Your task to perform on an android device: create a new album in the google photos Image 0: 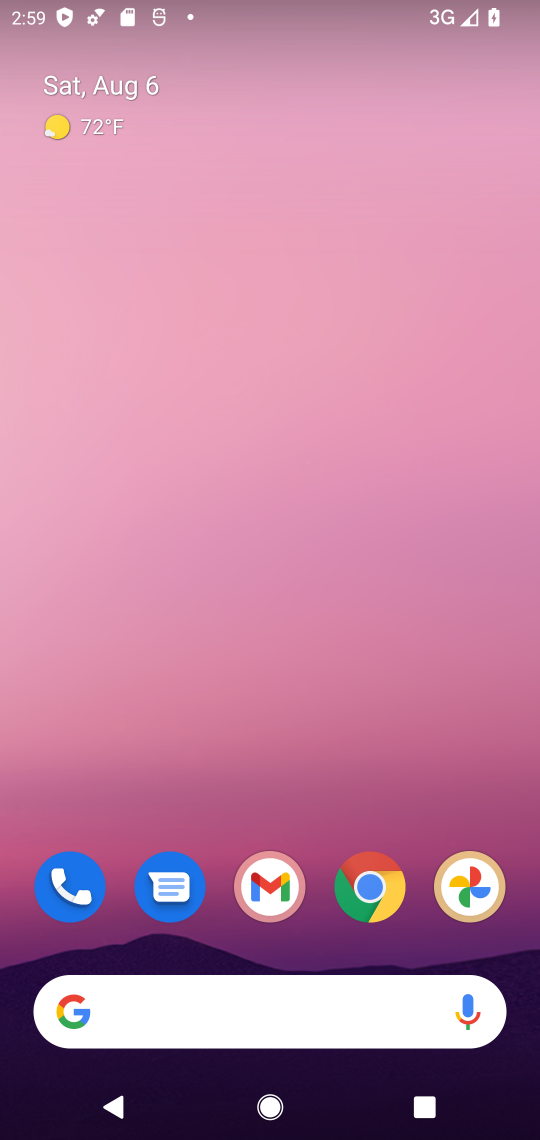
Step 0: drag from (412, 353) to (440, 183)
Your task to perform on an android device: create a new album in the google photos Image 1: 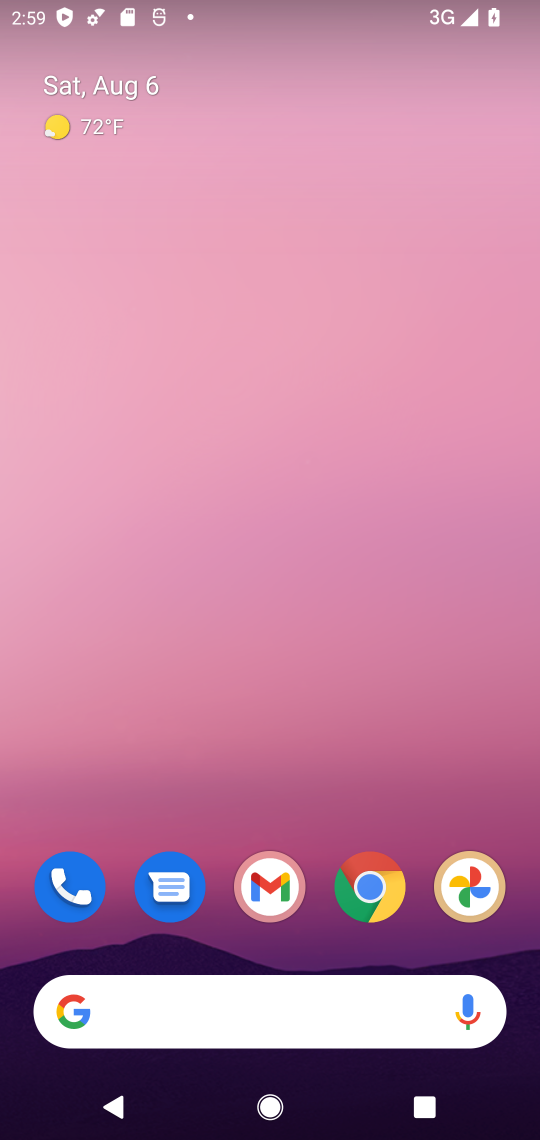
Step 1: drag from (411, 803) to (391, 78)
Your task to perform on an android device: create a new album in the google photos Image 2: 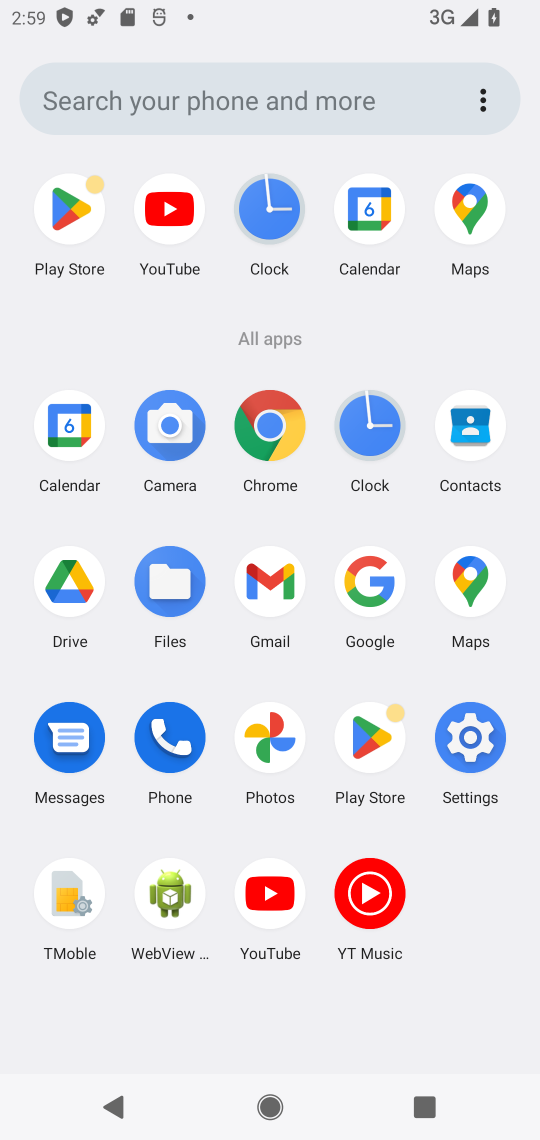
Step 2: click (269, 755)
Your task to perform on an android device: create a new album in the google photos Image 3: 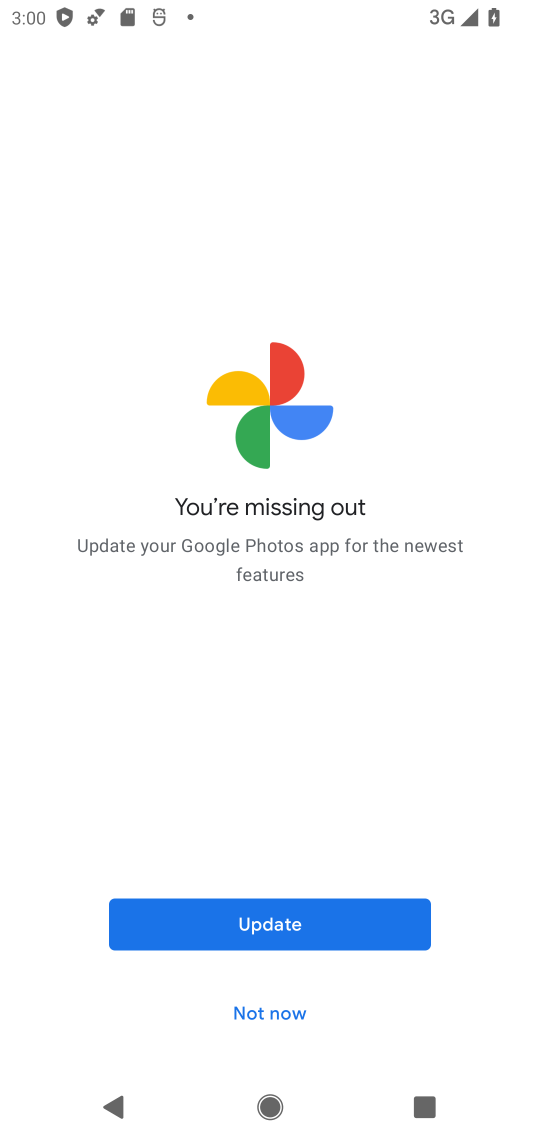
Step 3: click (278, 1015)
Your task to perform on an android device: create a new album in the google photos Image 4: 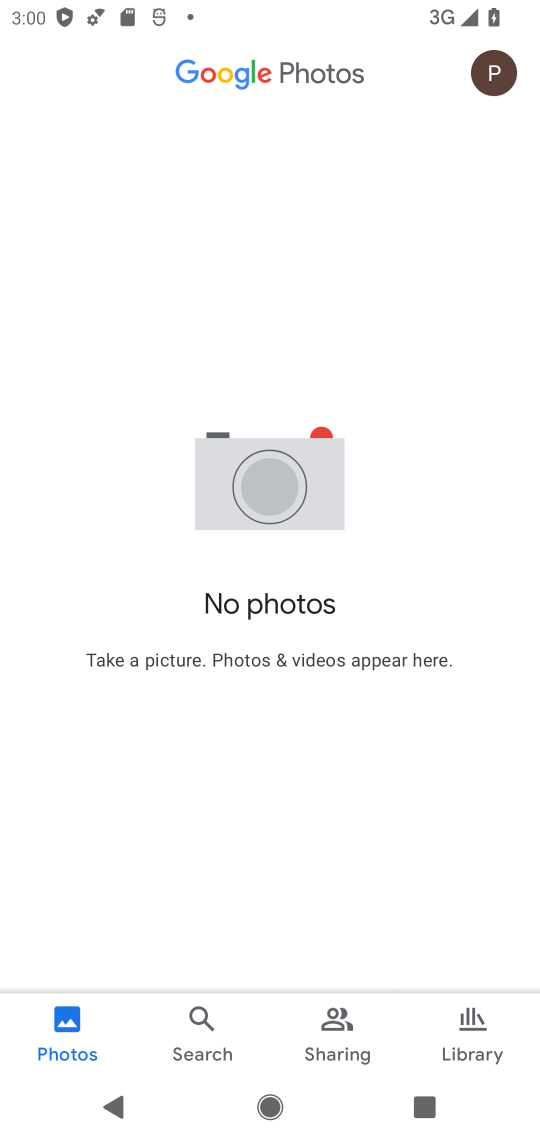
Step 4: click (470, 1030)
Your task to perform on an android device: create a new album in the google photos Image 5: 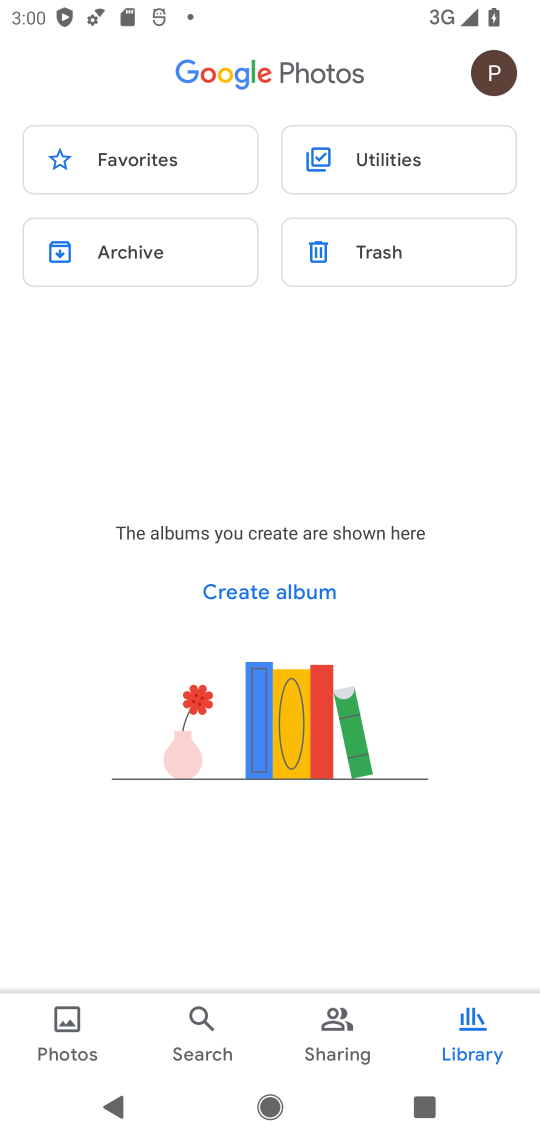
Step 5: click (306, 583)
Your task to perform on an android device: create a new album in the google photos Image 6: 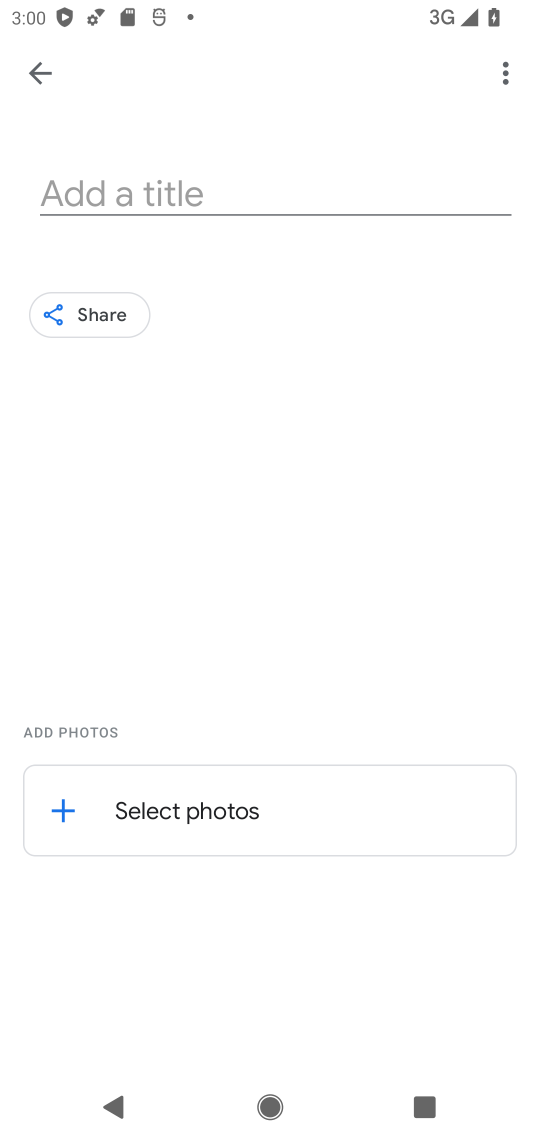
Step 6: click (224, 189)
Your task to perform on an android device: create a new album in the google photos Image 7: 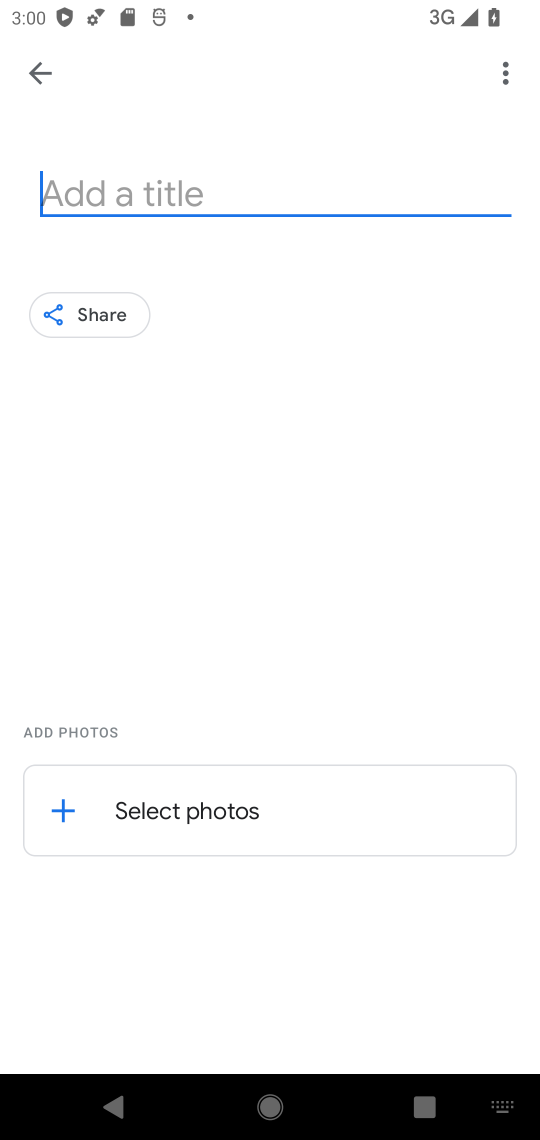
Step 7: type "lolol"
Your task to perform on an android device: create a new album in the google photos Image 8: 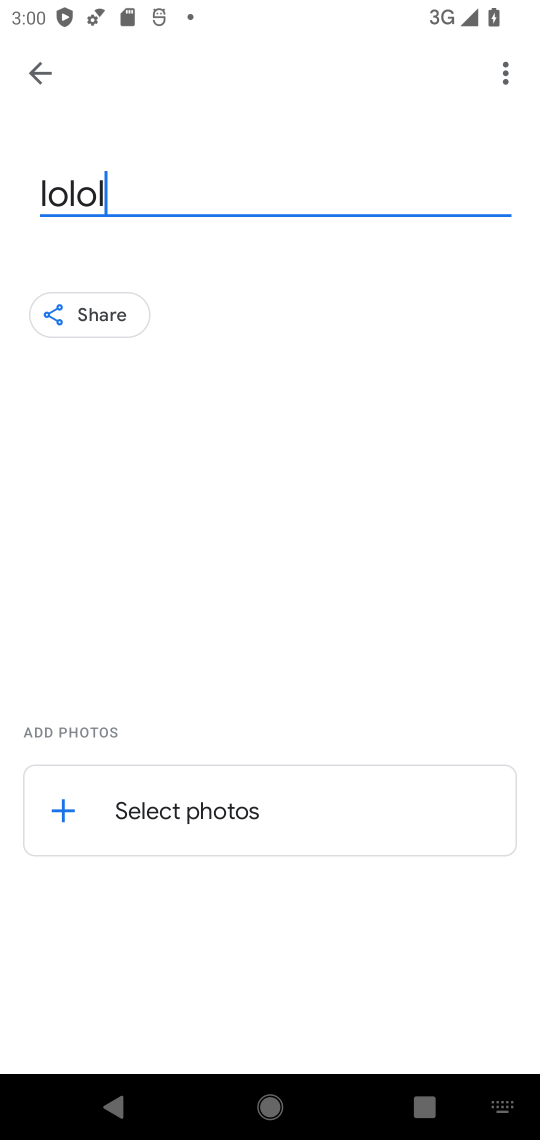
Step 8: click (315, 796)
Your task to perform on an android device: create a new album in the google photos Image 9: 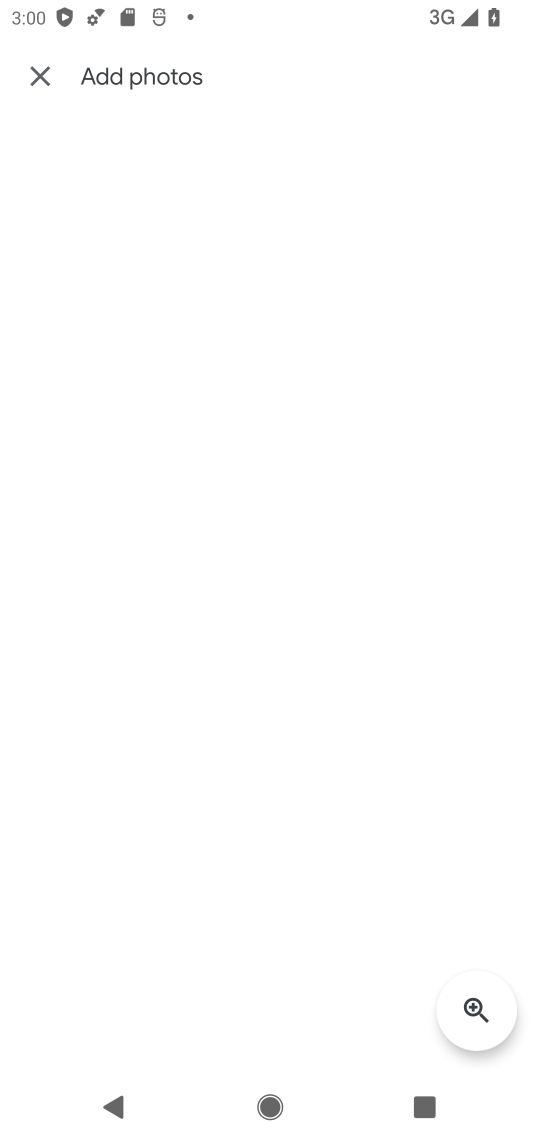
Step 9: task complete